Your task to perform on an android device: Check the news Image 0: 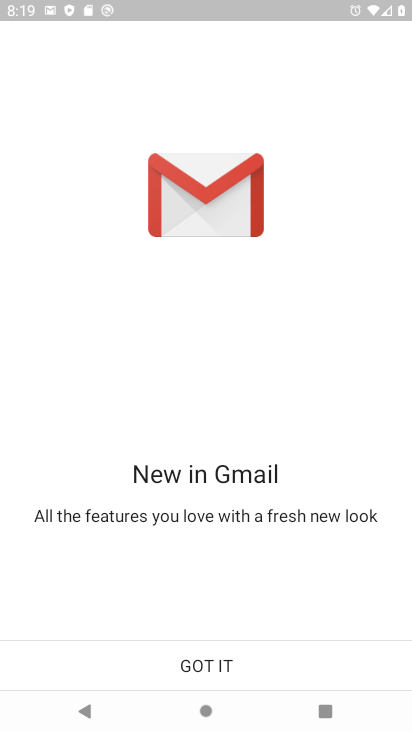
Step 0: press home button
Your task to perform on an android device: Check the news Image 1: 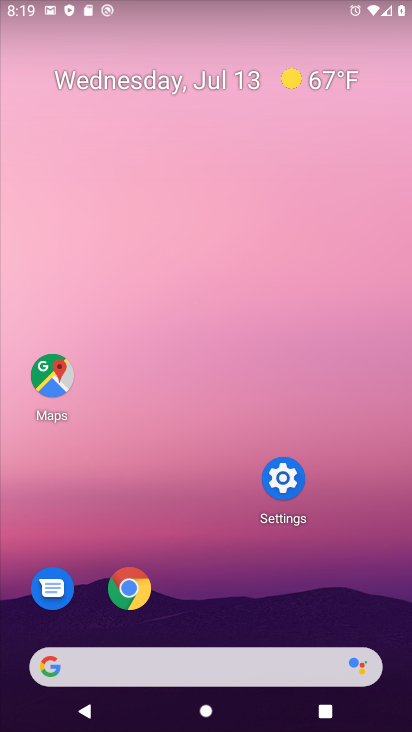
Step 1: click (210, 657)
Your task to perform on an android device: Check the news Image 2: 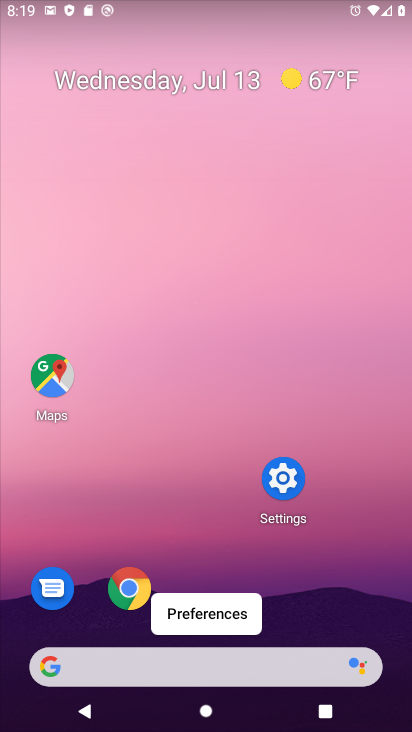
Step 2: click (136, 669)
Your task to perform on an android device: Check the news Image 3: 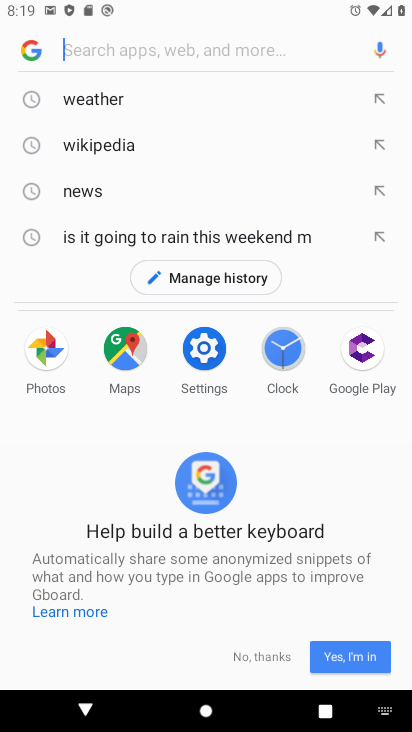
Step 3: click (81, 202)
Your task to perform on an android device: Check the news Image 4: 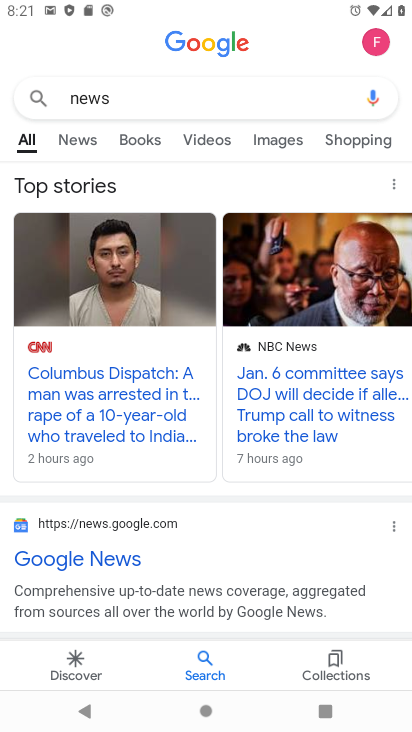
Step 4: task complete